Your task to perform on an android device: Go to location settings Image 0: 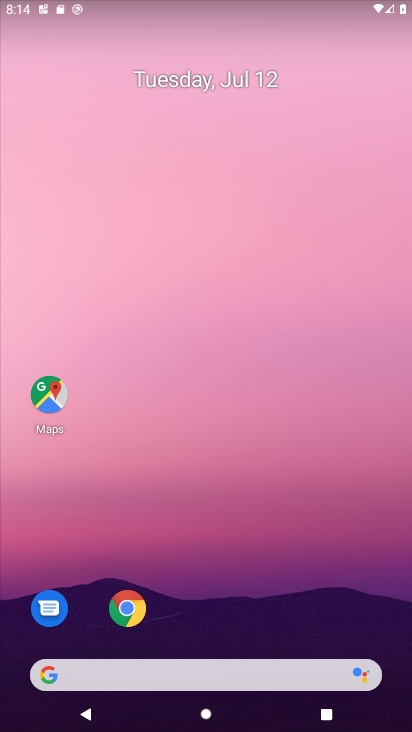
Step 0: drag from (159, 677) to (303, 253)
Your task to perform on an android device: Go to location settings Image 1: 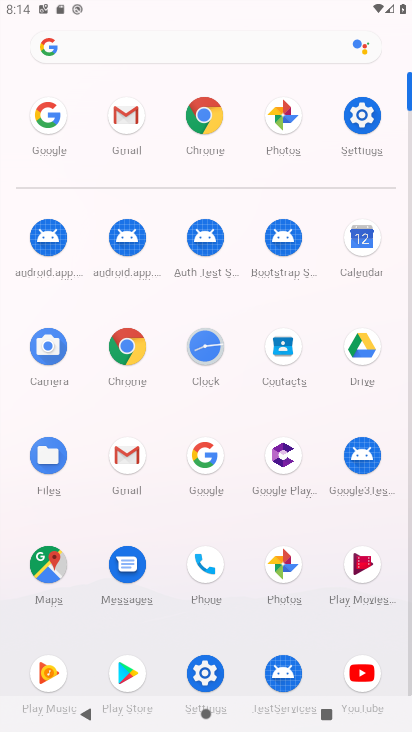
Step 1: click (361, 117)
Your task to perform on an android device: Go to location settings Image 2: 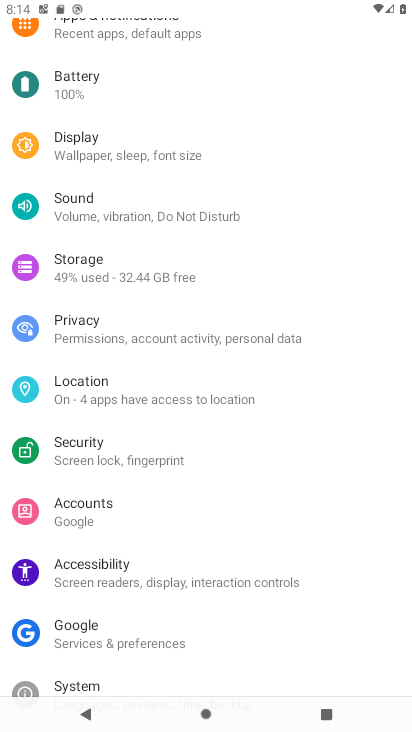
Step 2: click (88, 391)
Your task to perform on an android device: Go to location settings Image 3: 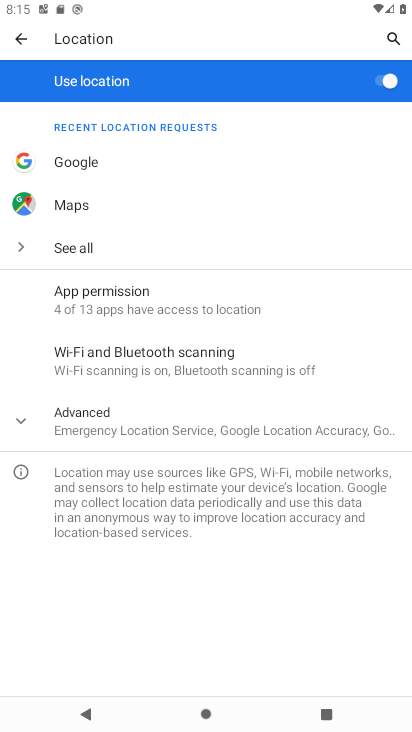
Step 3: click (79, 421)
Your task to perform on an android device: Go to location settings Image 4: 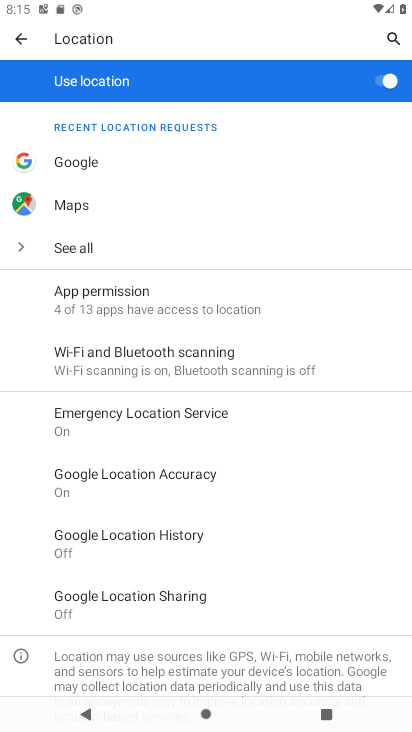
Step 4: click (95, 296)
Your task to perform on an android device: Go to location settings Image 5: 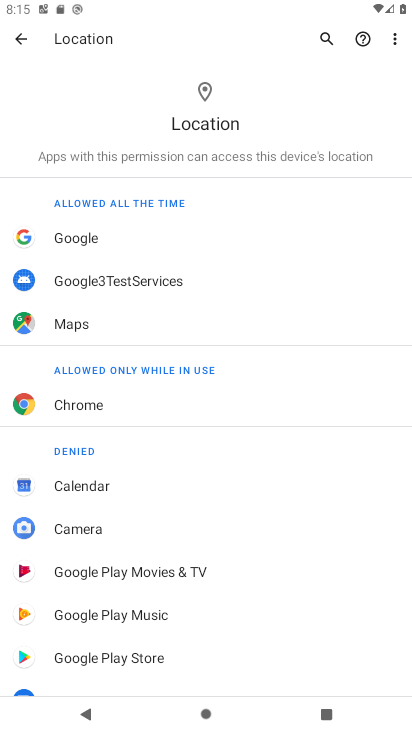
Step 5: task complete